Your task to perform on an android device: change the clock style Image 0: 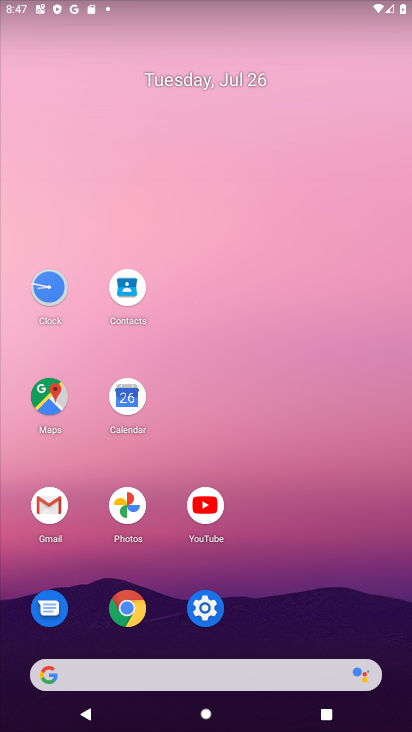
Step 0: click (45, 286)
Your task to perform on an android device: change the clock style Image 1: 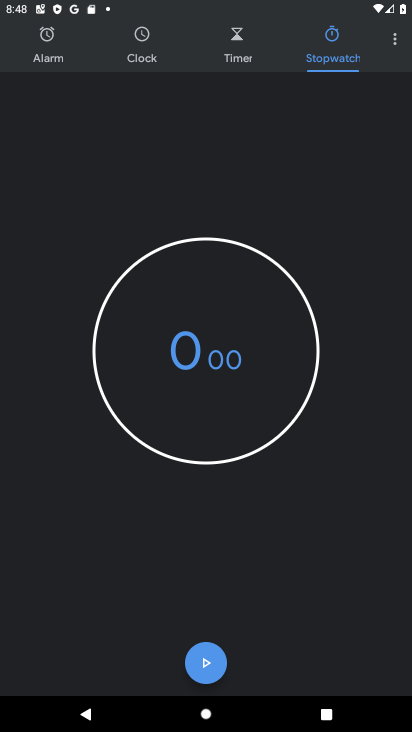
Step 1: click (397, 45)
Your task to perform on an android device: change the clock style Image 2: 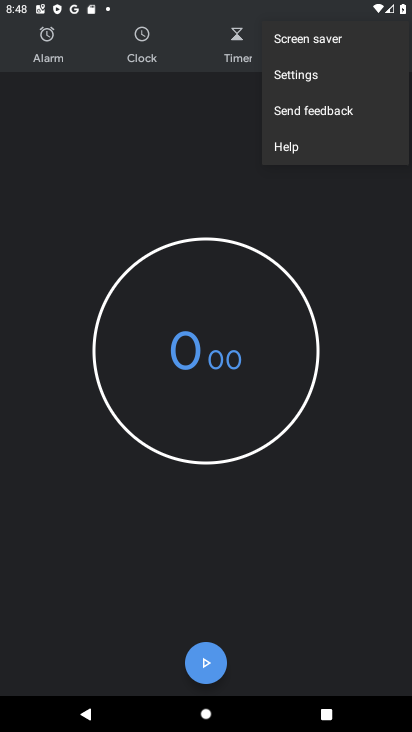
Step 2: click (305, 75)
Your task to perform on an android device: change the clock style Image 3: 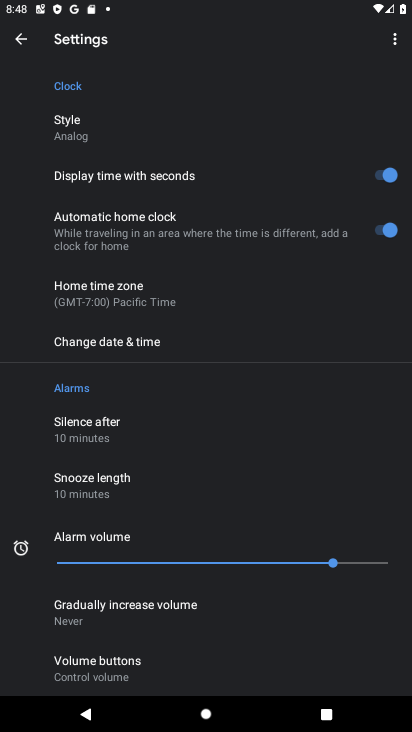
Step 3: click (73, 126)
Your task to perform on an android device: change the clock style Image 4: 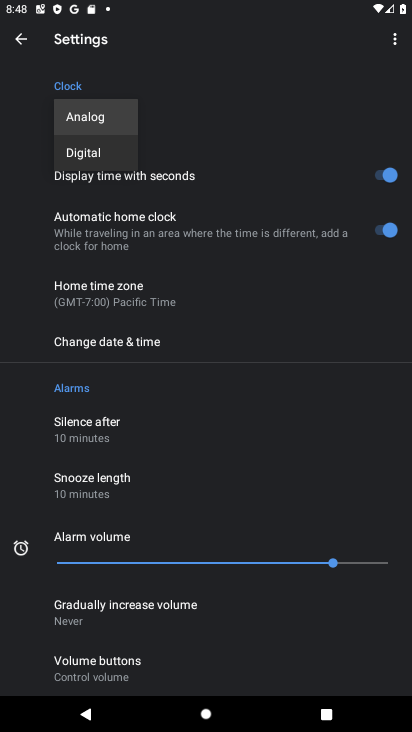
Step 4: click (83, 156)
Your task to perform on an android device: change the clock style Image 5: 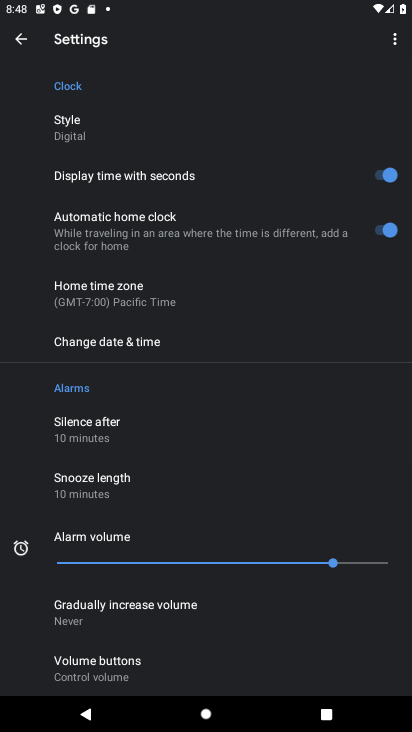
Step 5: task complete